Your task to perform on an android device: Open the map Image 0: 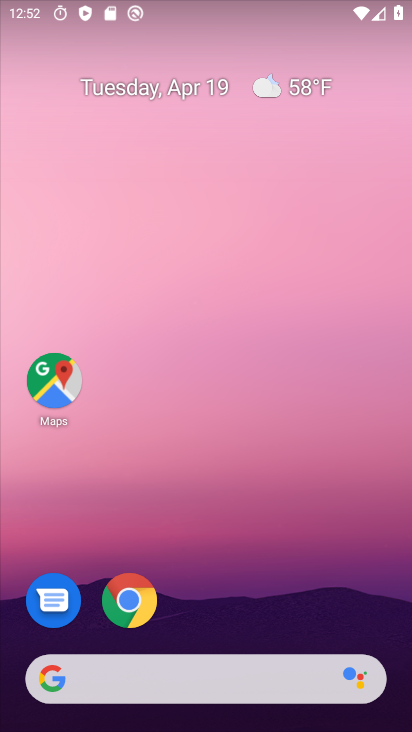
Step 0: drag from (222, 721) to (206, 287)
Your task to perform on an android device: Open the map Image 1: 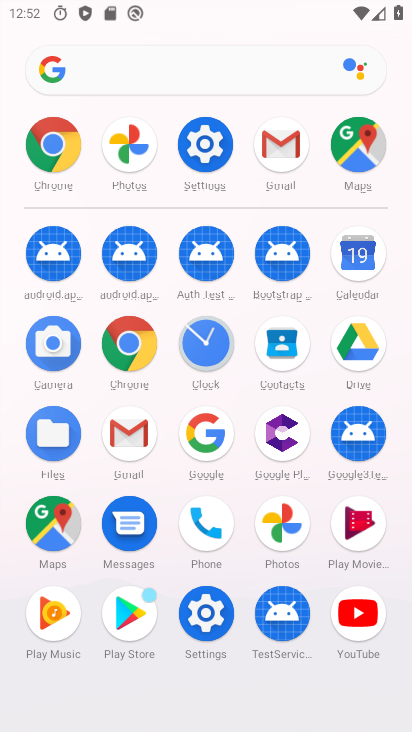
Step 1: click (361, 158)
Your task to perform on an android device: Open the map Image 2: 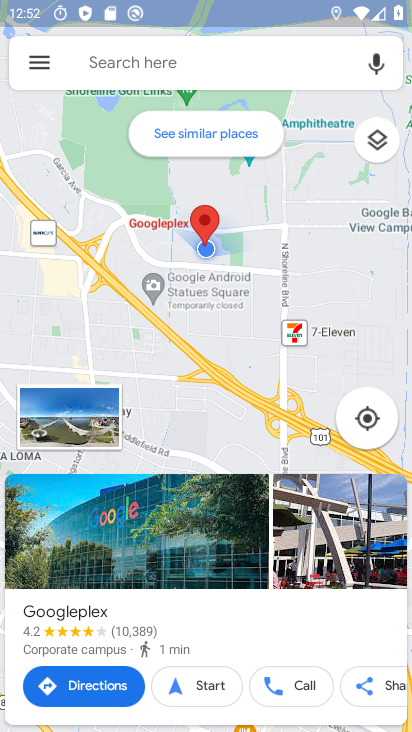
Step 2: click (239, 255)
Your task to perform on an android device: Open the map Image 3: 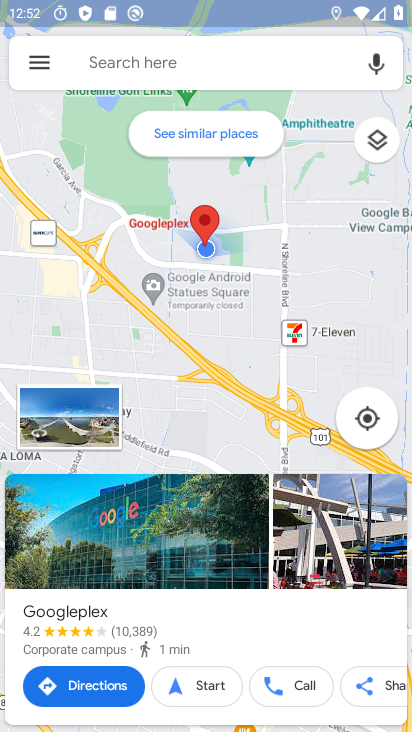
Step 3: task complete